Your task to perform on an android device: Search for the best-rated coffee table on Crate & Barrel Image 0: 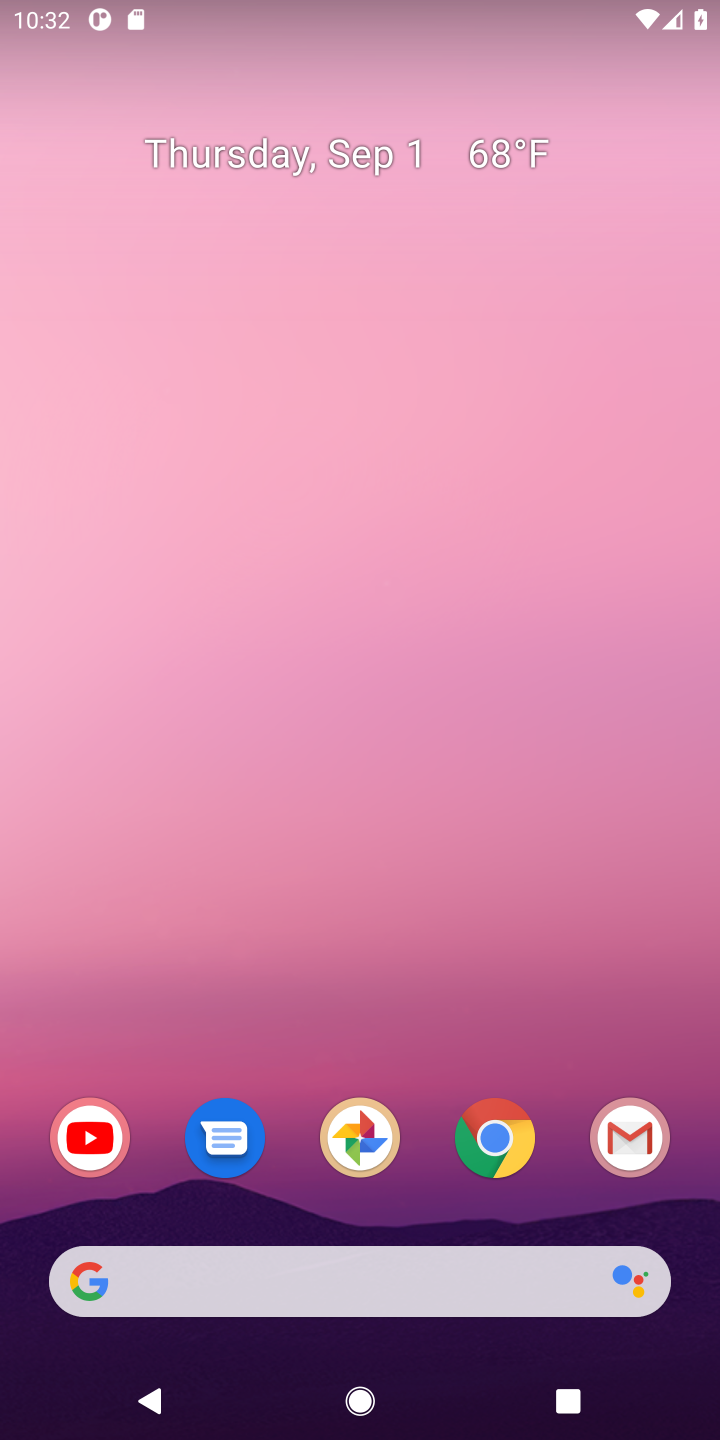
Step 0: click (200, 1271)
Your task to perform on an android device: Search for the best-rated coffee table on Crate & Barrel Image 1: 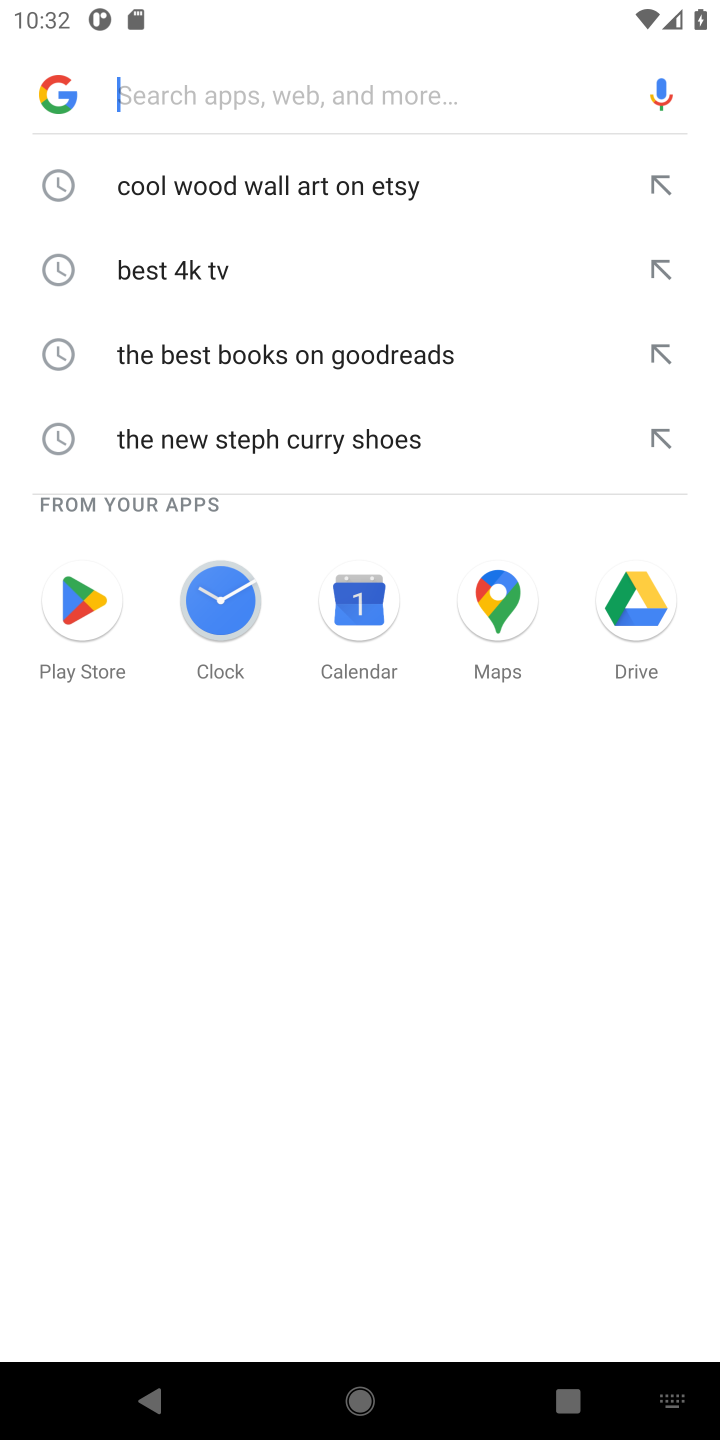
Step 1: type "the best-rated coffee table on Crate & Barrel"
Your task to perform on an android device: Search for the best-rated coffee table on Crate & Barrel Image 2: 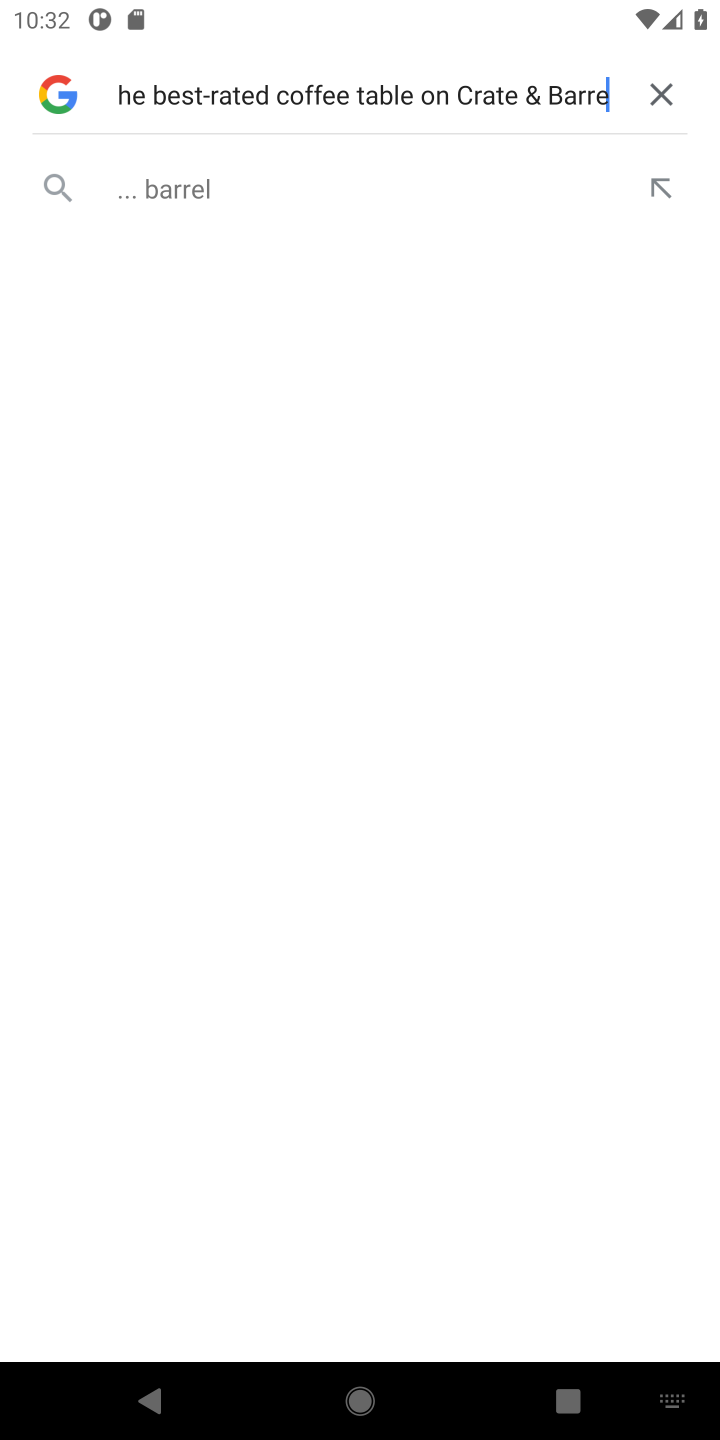
Step 2: click (146, 190)
Your task to perform on an android device: Search for the best-rated coffee table on Crate & Barrel Image 3: 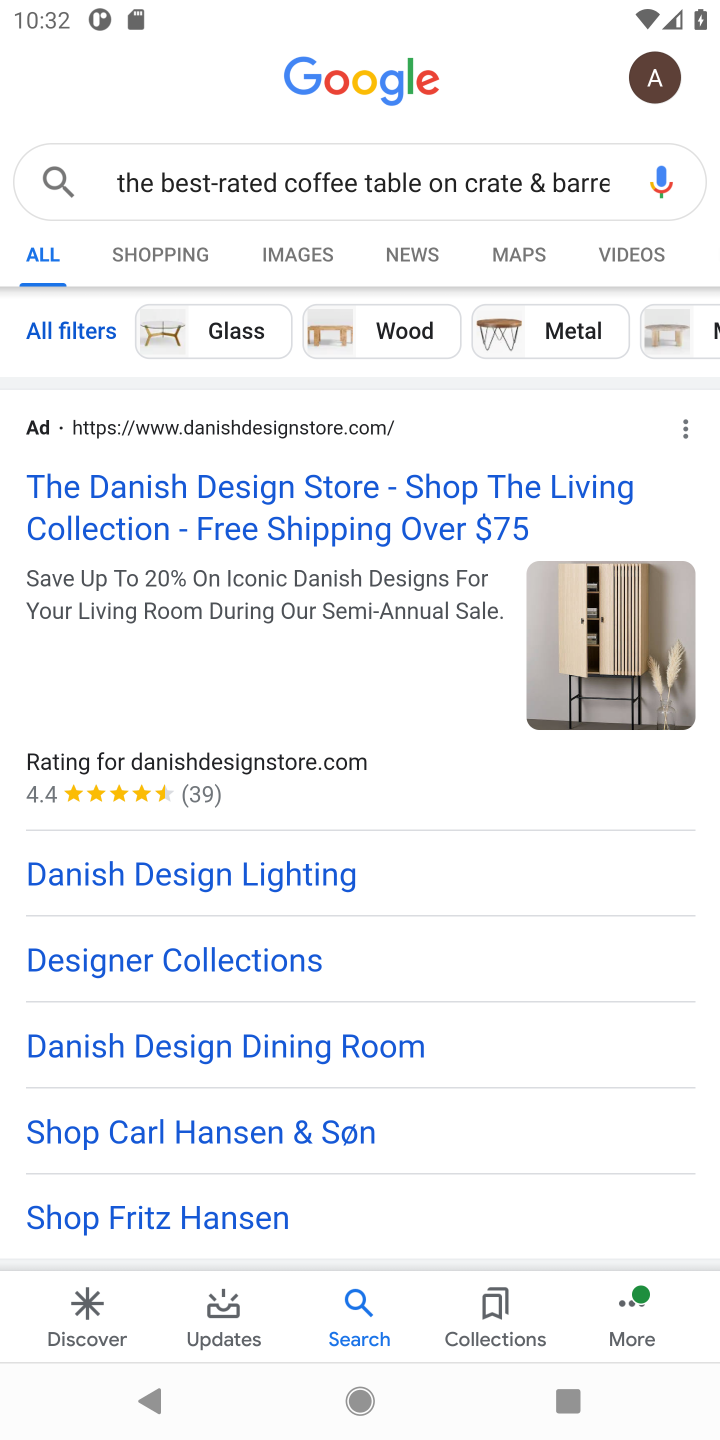
Step 3: task complete